Your task to perform on an android device: set the timer Image 0: 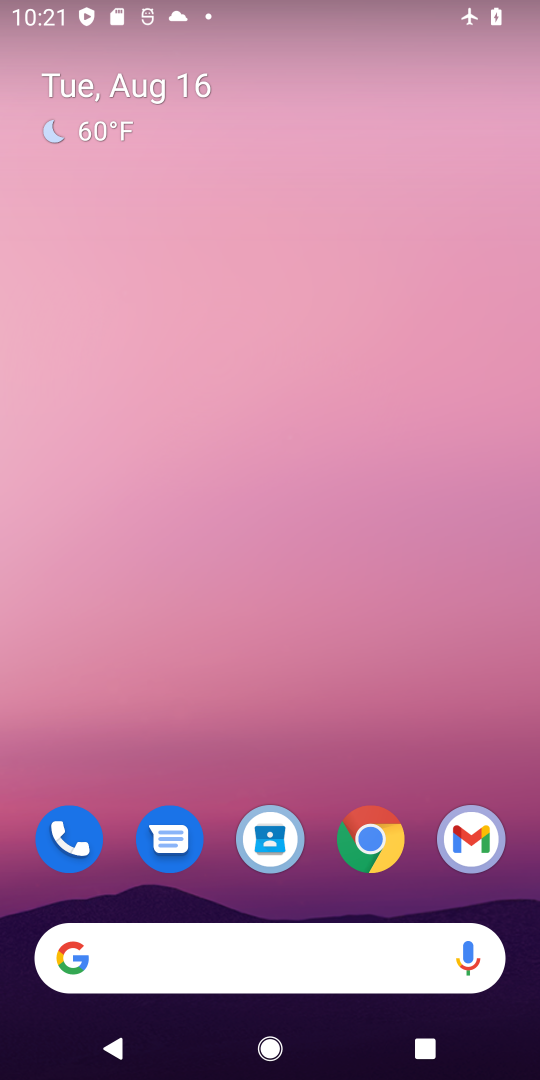
Step 0: drag from (241, 697) to (324, 176)
Your task to perform on an android device: set the timer Image 1: 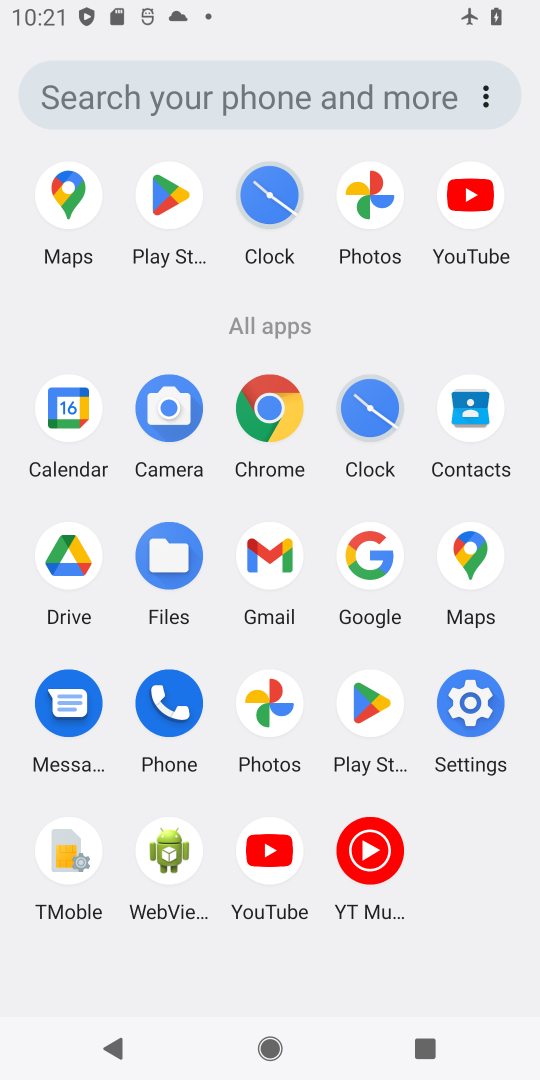
Step 1: click (374, 433)
Your task to perform on an android device: set the timer Image 2: 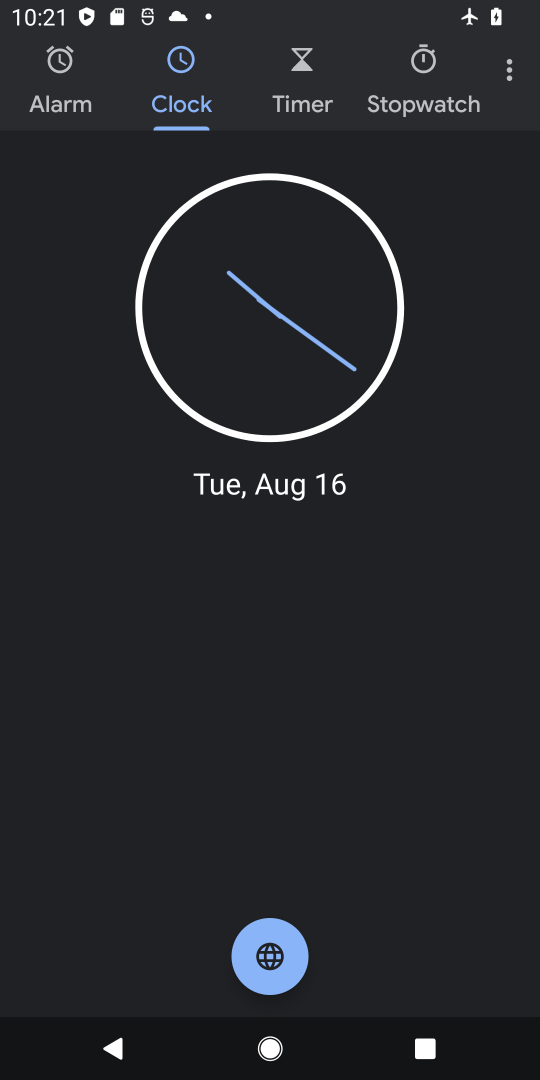
Step 2: click (294, 97)
Your task to perform on an android device: set the timer Image 3: 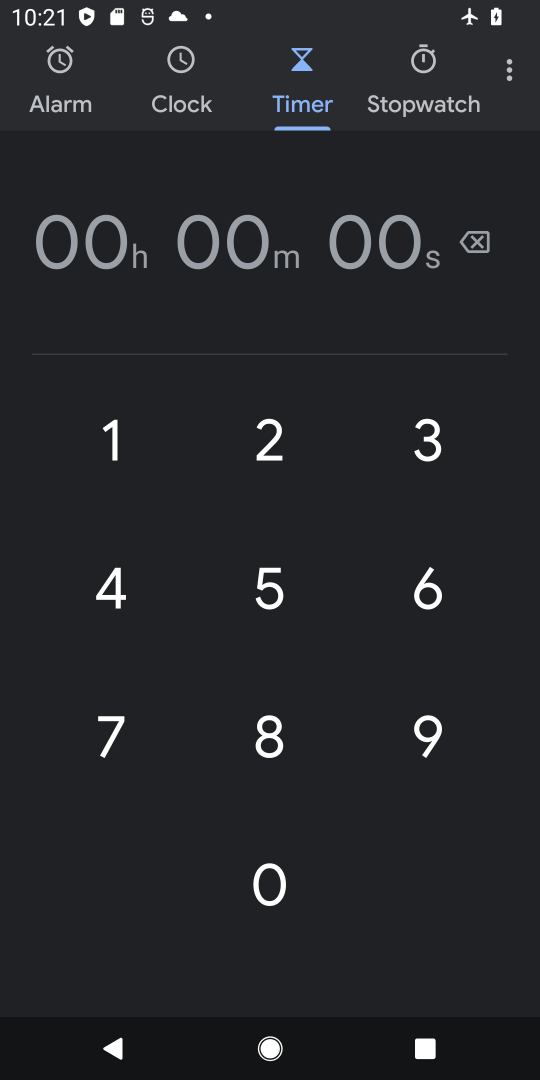
Step 3: click (263, 746)
Your task to perform on an android device: set the timer Image 4: 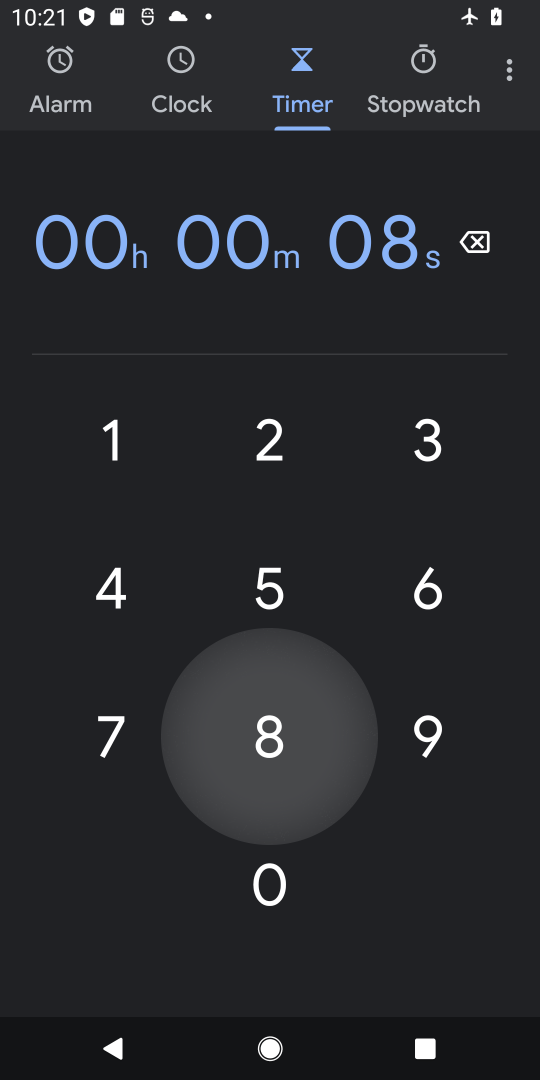
Step 4: click (253, 586)
Your task to perform on an android device: set the timer Image 5: 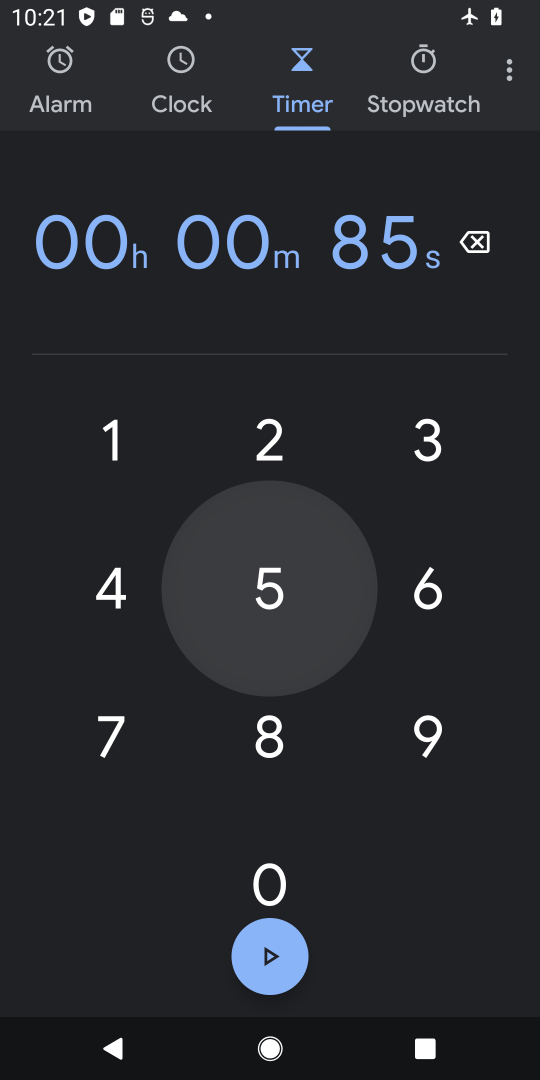
Step 5: click (124, 587)
Your task to perform on an android device: set the timer Image 6: 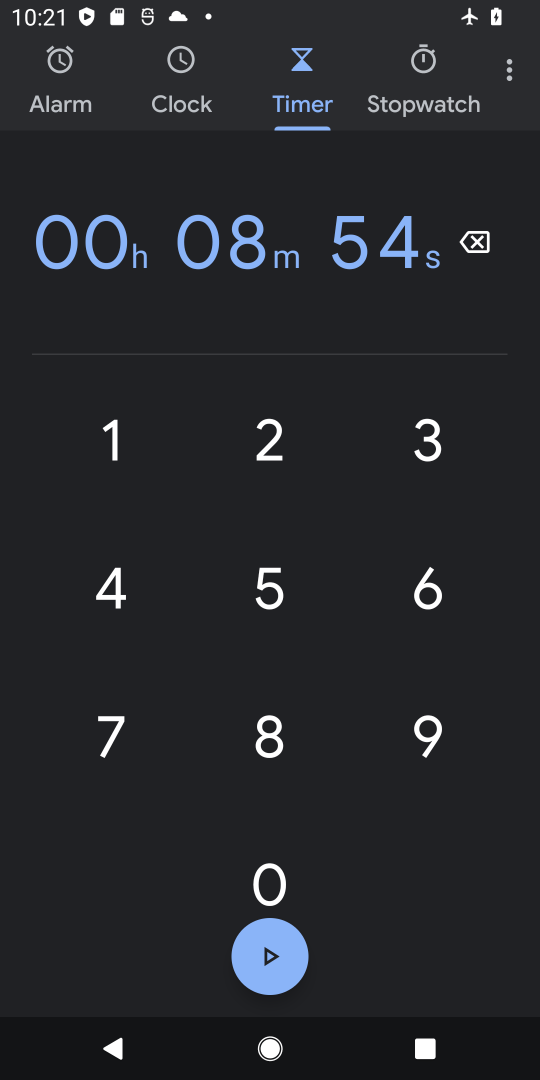
Step 6: click (260, 982)
Your task to perform on an android device: set the timer Image 7: 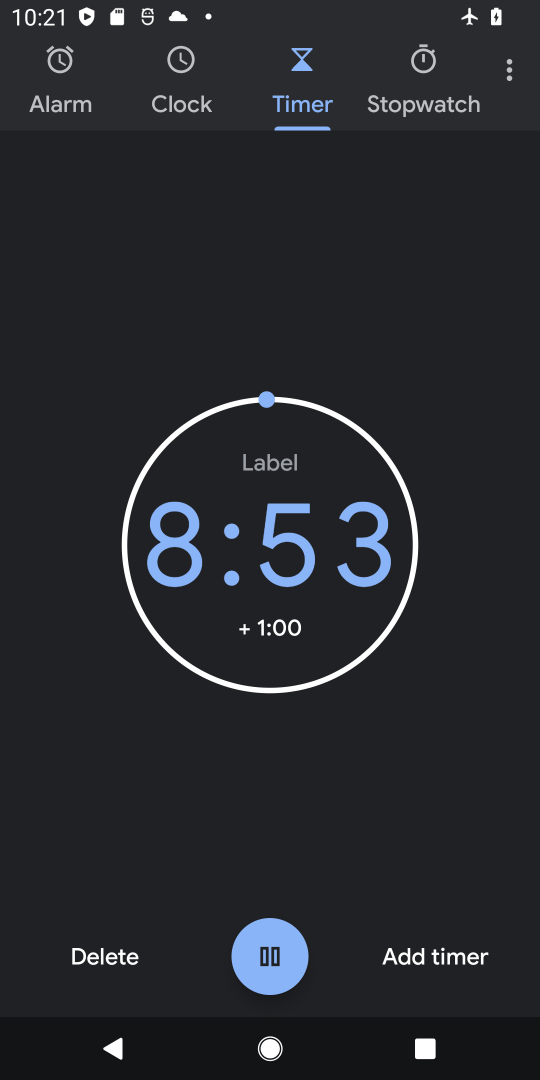
Step 7: task complete